Your task to perform on an android device: turn vacation reply on in the gmail app Image 0: 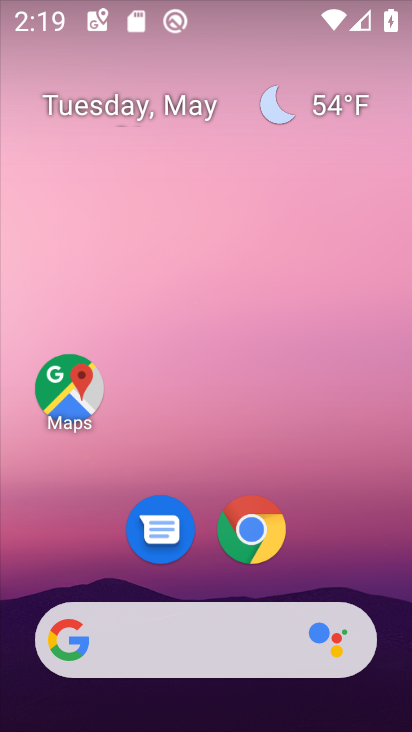
Step 0: drag from (322, 574) to (291, 246)
Your task to perform on an android device: turn vacation reply on in the gmail app Image 1: 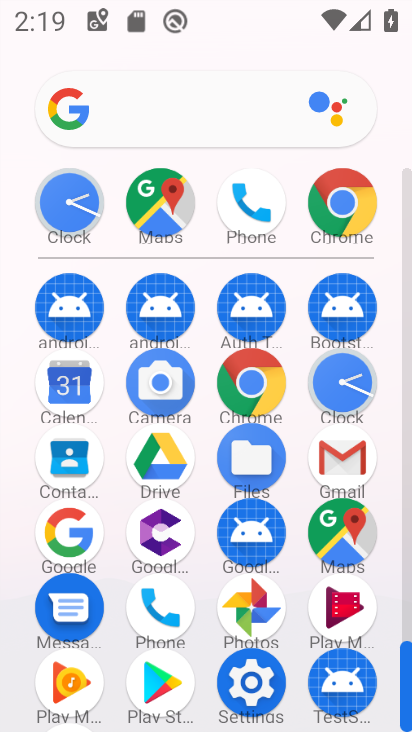
Step 1: click (308, 451)
Your task to perform on an android device: turn vacation reply on in the gmail app Image 2: 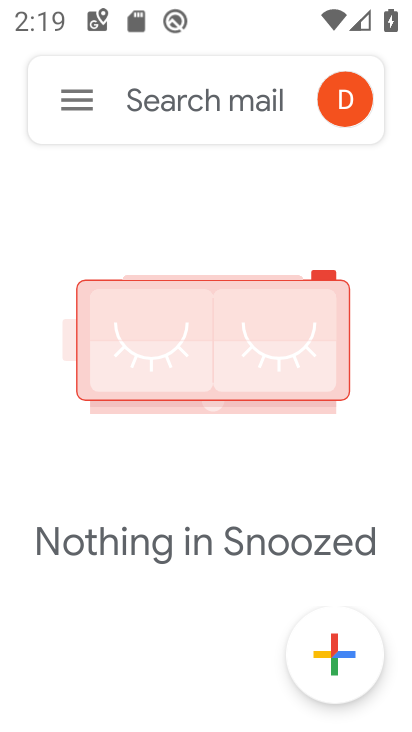
Step 2: click (64, 102)
Your task to perform on an android device: turn vacation reply on in the gmail app Image 3: 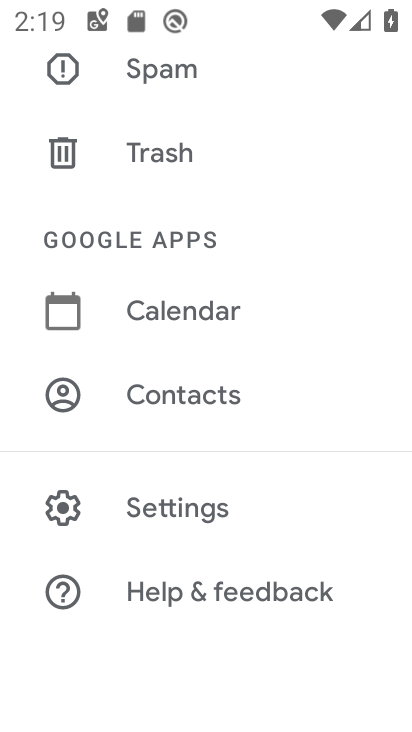
Step 3: click (211, 511)
Your task to perform on an android device: turn vacation reply on in the gmail app Image 4: 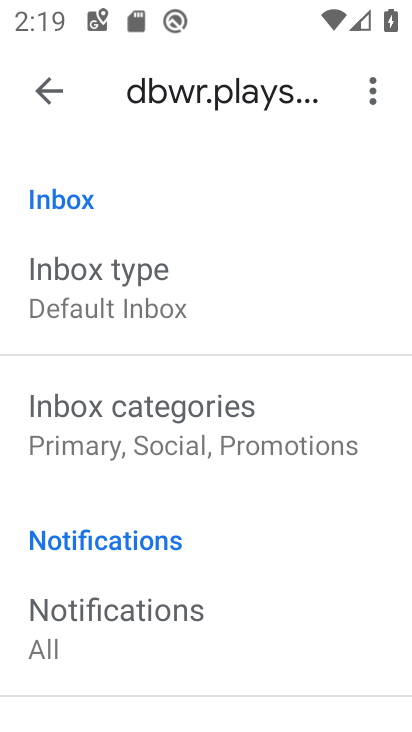
Step 4: drag from (209, 608) to (220, 238)
Your task to perform on an android device: turn vacation reply on in the gmail app Image 5: 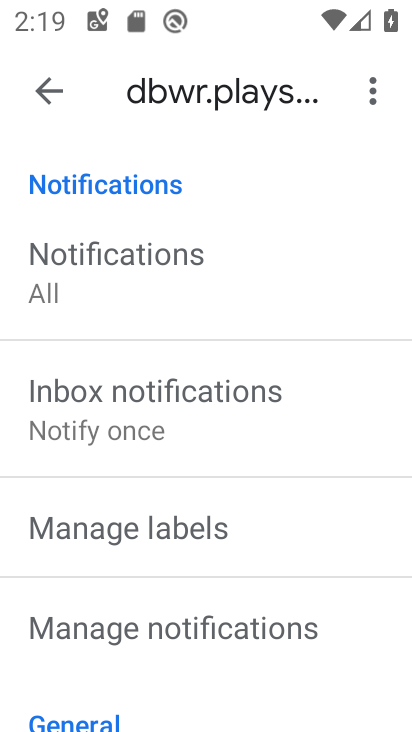
Step 5: drag from (213, 607) to (231, 252)
Your task to perform on an android device: turn vacation reply on in the gmail app Image 6: 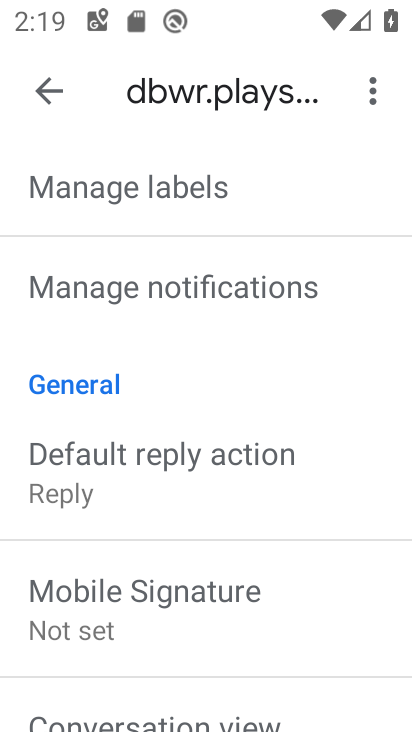
Step 6: drag from (240, 599) to (255, 194)
Your task to perform on an android device: turn vacation reply on in the gmail app Image 7: 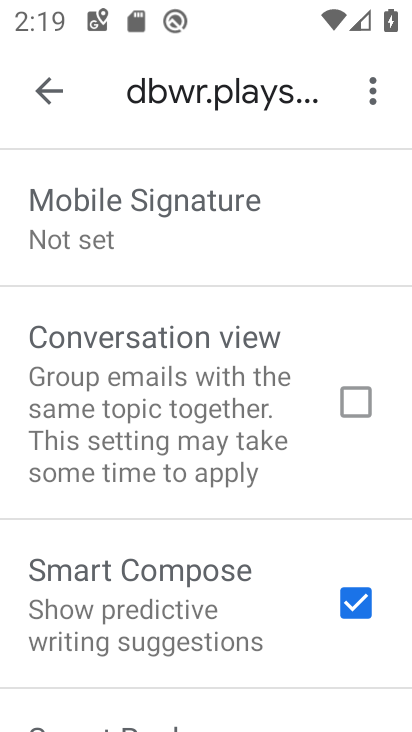
Step 7: drag from (187, 577) to (223, 189)
Your task to perform on an android device: turn vacation reply on in the gmail app Image 8: 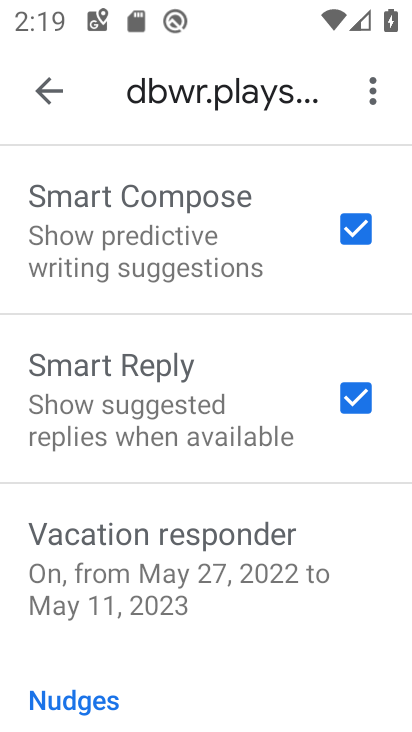
Step 8: drag from (163, 567) to (170, 518)
Your task to perform on an android device: turn vacation reply on in the gmail app Image 9: 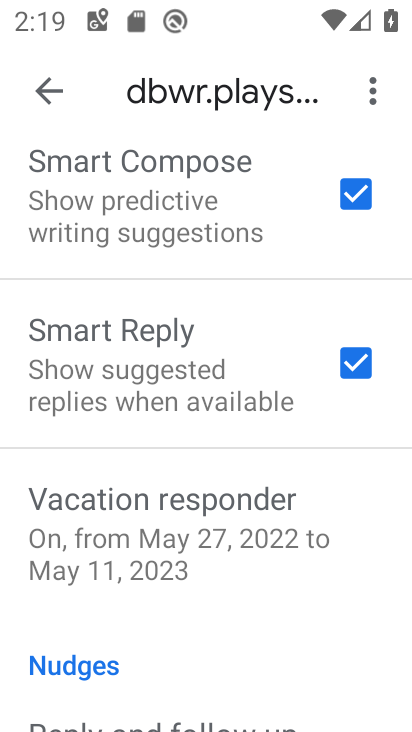
Step 9: click (170, 516)
Your task to perform on an android device: turn vacation reply on in the gmail app Image 10: 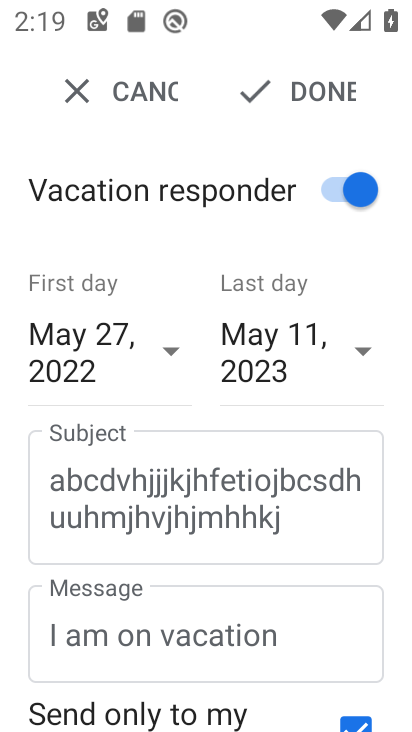
Step 10: click (262, 95)
Your task to perform on an android device: turn vacation reply on in the gmail app Image 11: 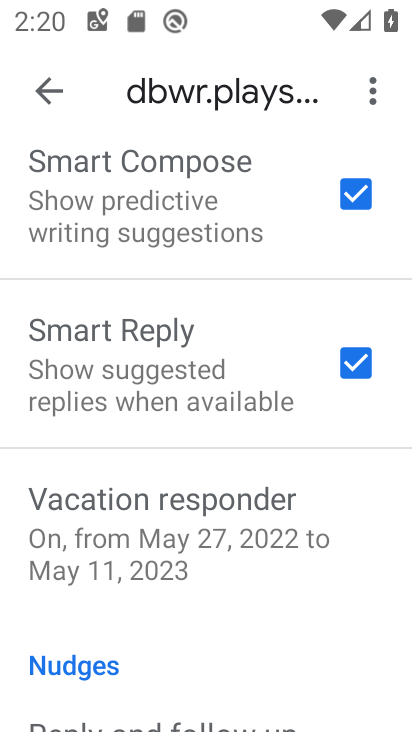
Step 11: task complete